Your task to perform on an android device: all mails in gmail Image 0: 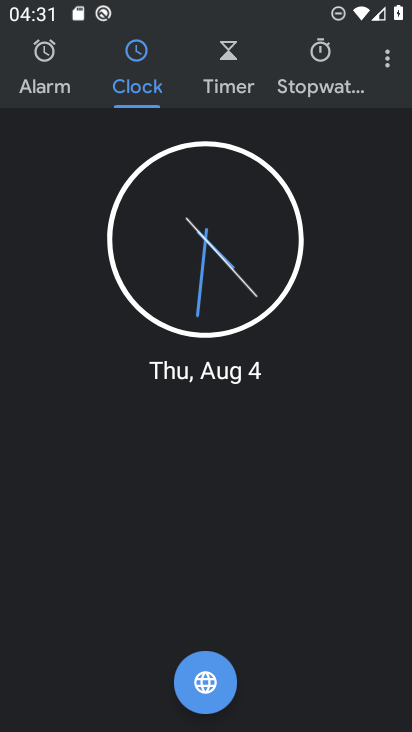
Step 0: press home button
Your task to perform on an android device: all mails in gmail Image 1: 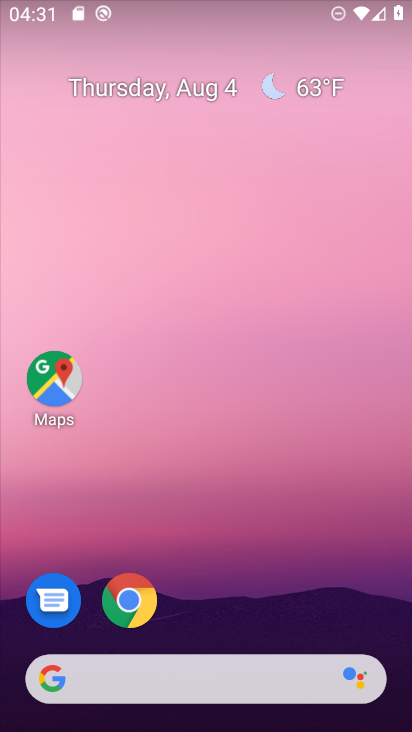
Step 1: drag from (333, 586) to (273, 43)
Your task to perform on an android device: all mails in gmail Image 2: 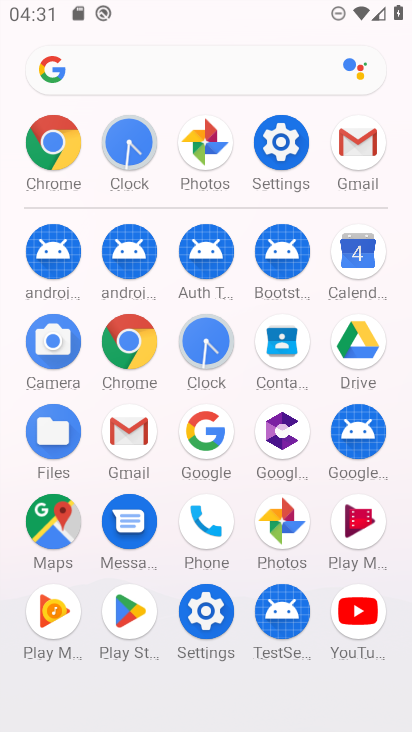
Step 2: click (121, 439)
Your task to perform on an android device: all mails in gmail Image 3: 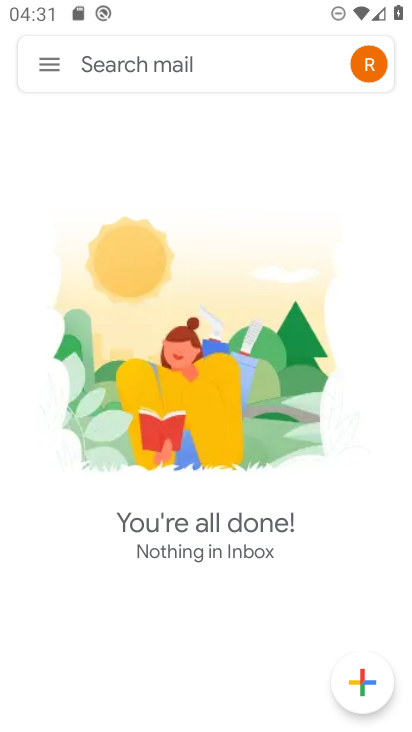
Step 3: click (38, 61)
Your task to perform on an android device: all mails in gmail Image 4: 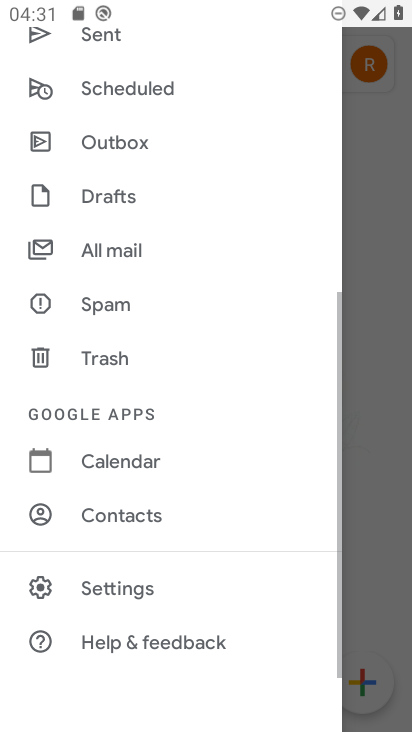
Step 4: click (113, 262)
Your task to perform on an android device: all mails in gmail Image 5: 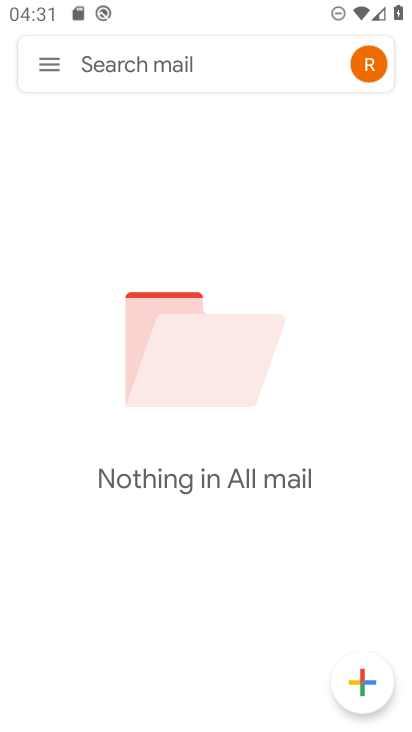
Step 5: task complete